Your task to perform on an android device: open app "Facebook" (install if not already installed) and enter user name: "resultants@gmail.com" and password: "earned" Image 0: 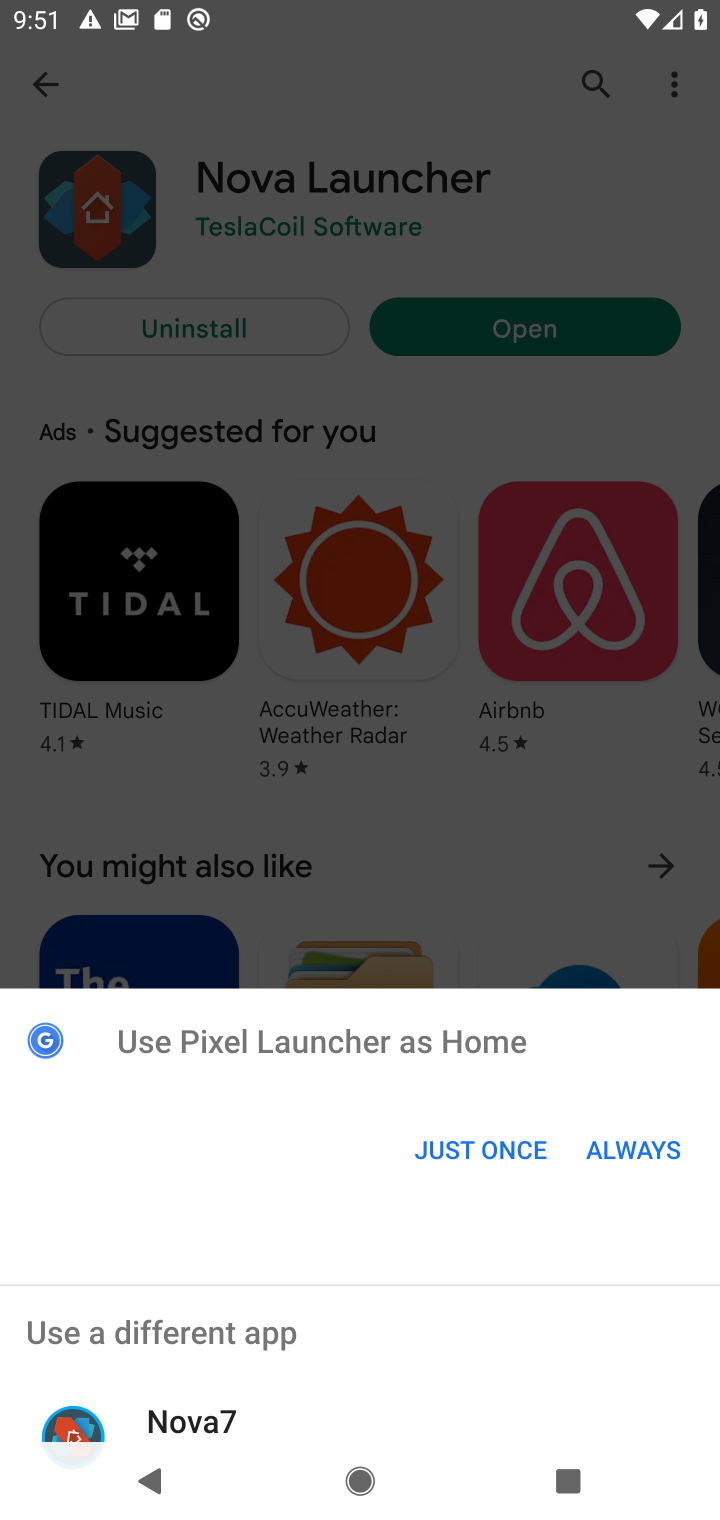
Step 0: press home button
Your task to perform on an android device: open app "Facebook" (install if not already installed) and enter user name: "resultants@gmail.com" and password: "earned" Image 1: 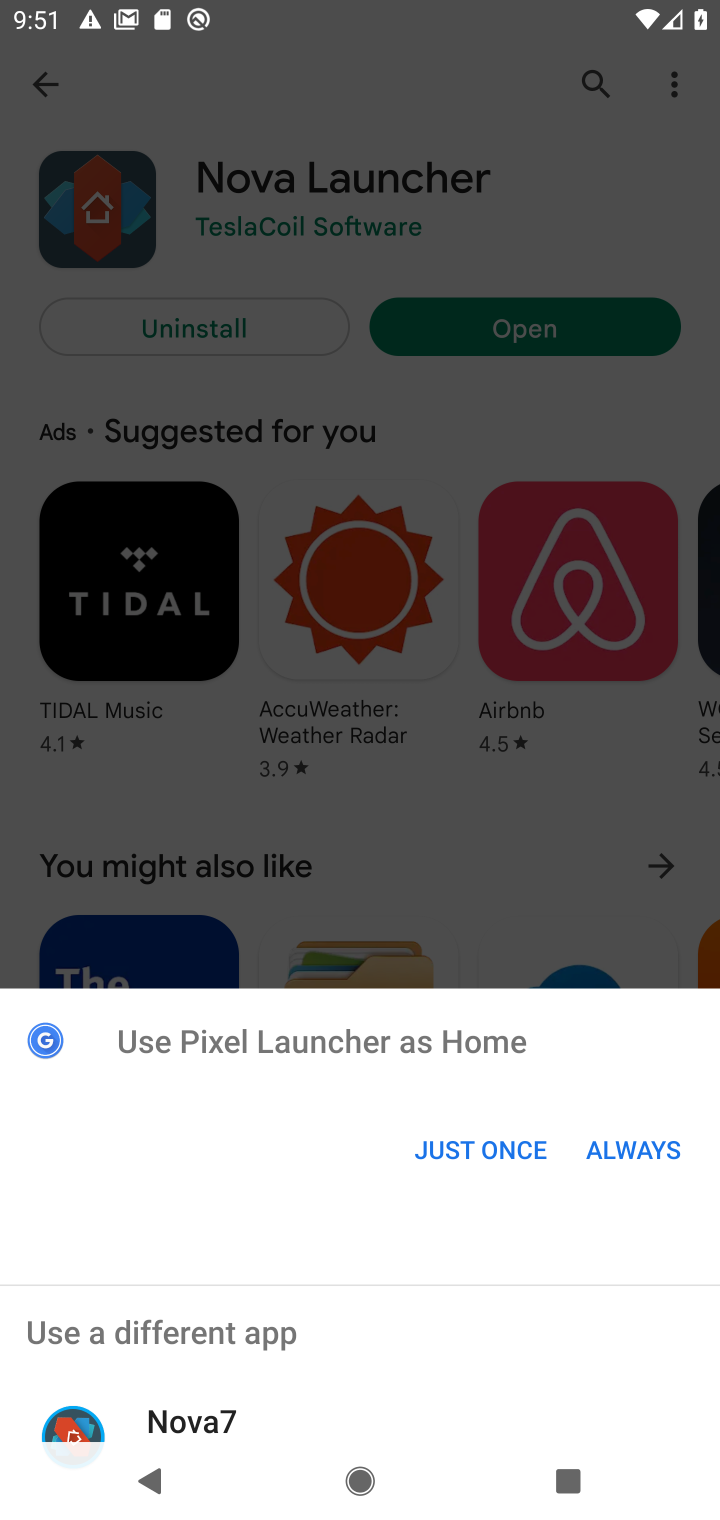
Step 1: click (606, 1140)
Your task to perform on an android device: open app "Facebook" (install if not already installed) and enter user name: "resultants@gmail.com" and password: "earned" Image 2: 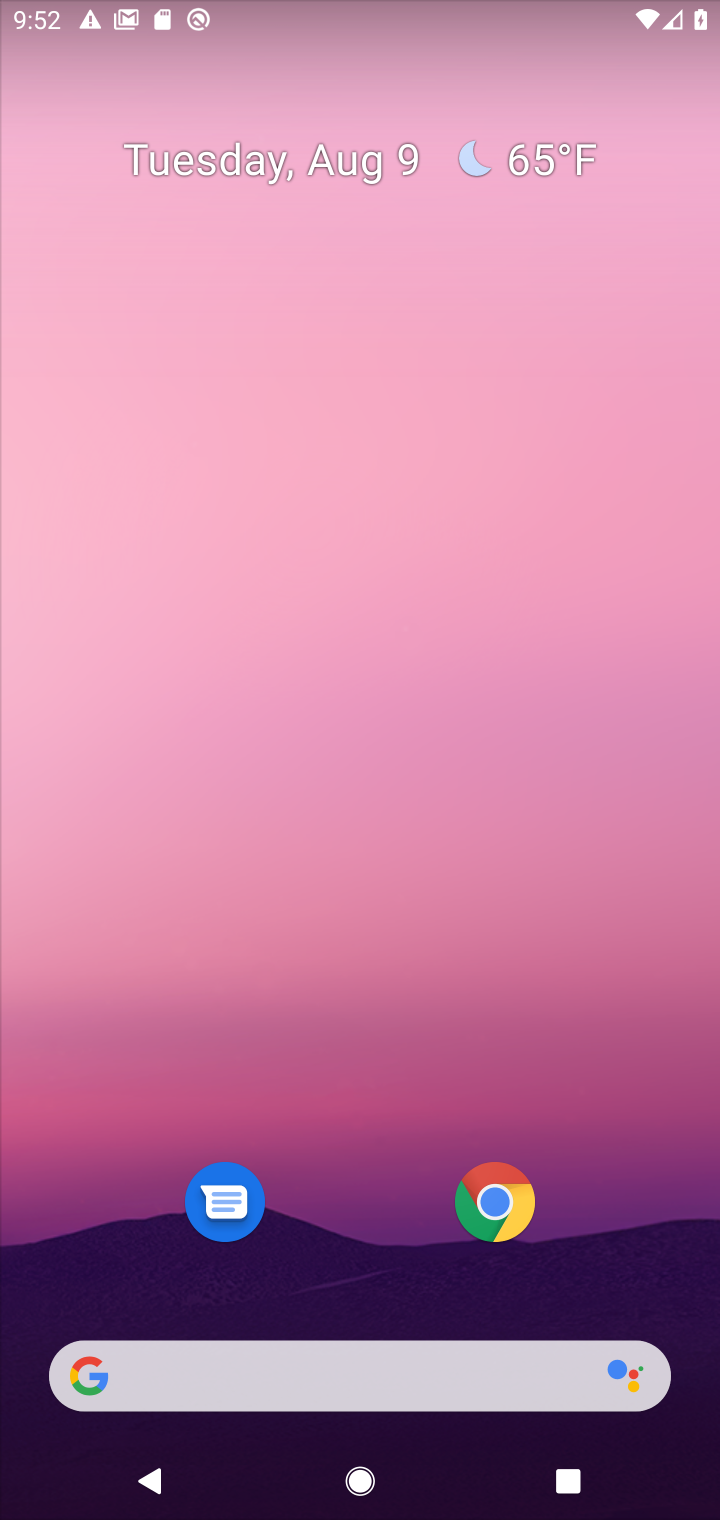
Step 2: drag from (378, 1089) to (379, 217)
Your task to perform on an android device: open app "Facebook" (install if not already installed) and enter user name: "resultants@gmail.com" and password: "earned" Image 3: 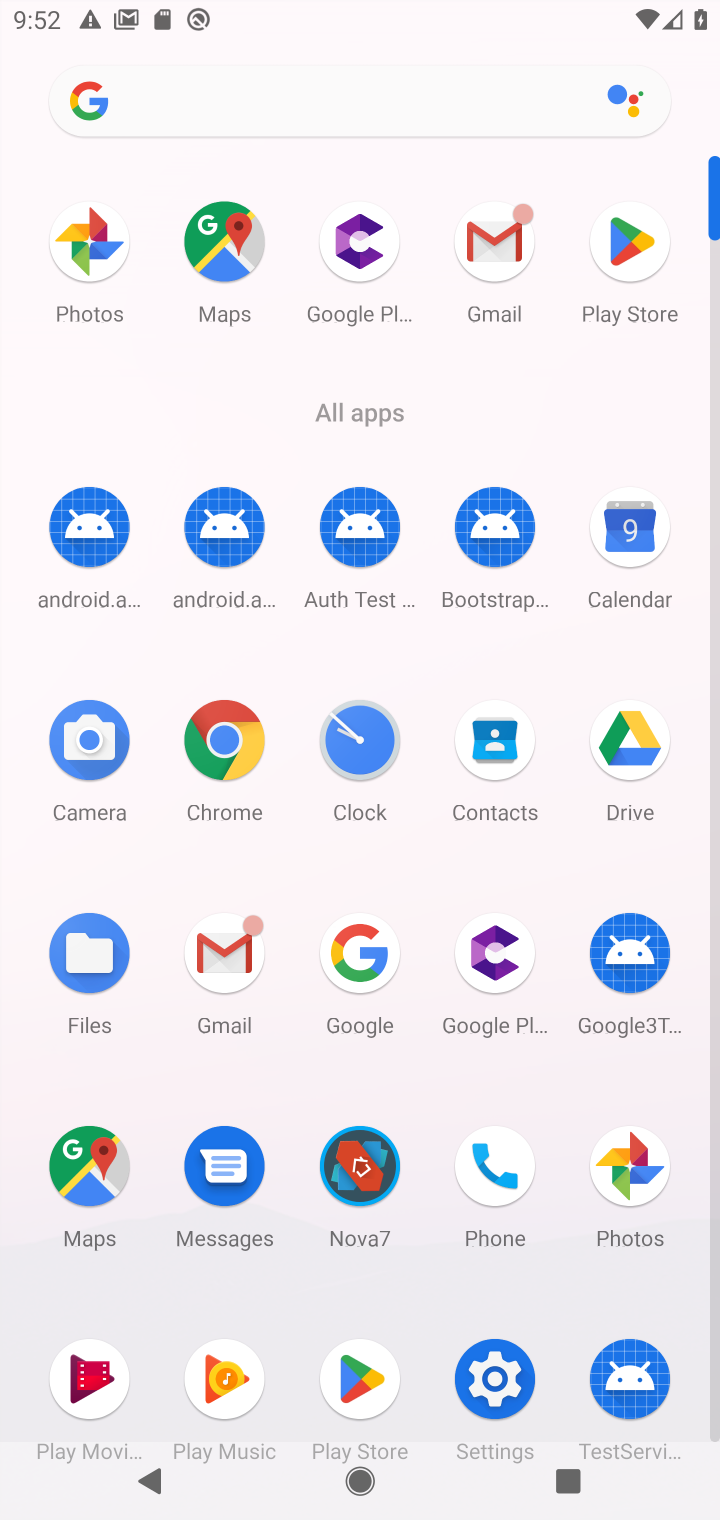
Step 3: click (357, 1344)
Your task to perform on an android device: open app "Facebook" (install if not already installed) and enter user name: "resultants@gmail.com" and password: "earned" Image 4: 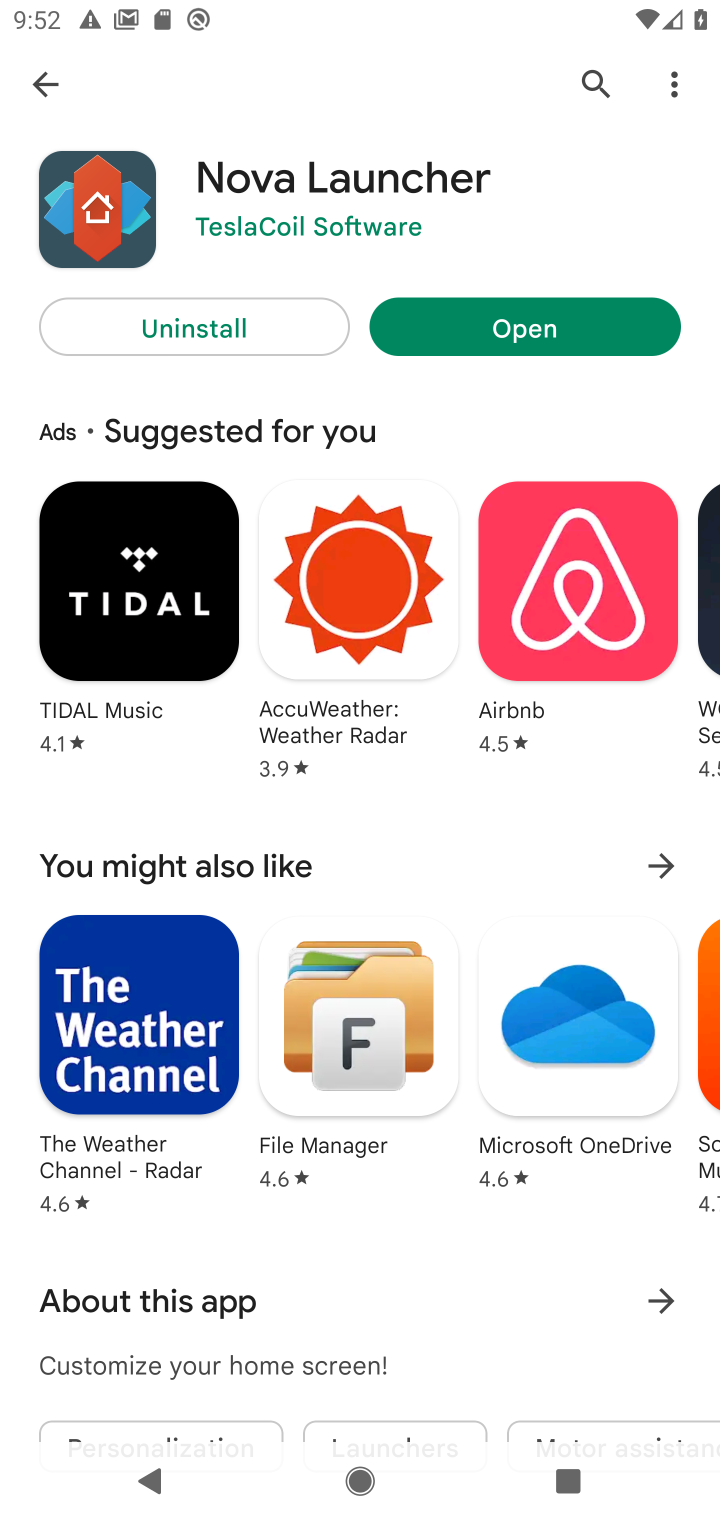
Step 4: click (583, 72)
Your task to perform on an android device: open app "Facebook" (install if not already installed) and enter user name: "resultants@gmail.com" and password: "earned" Image 5: 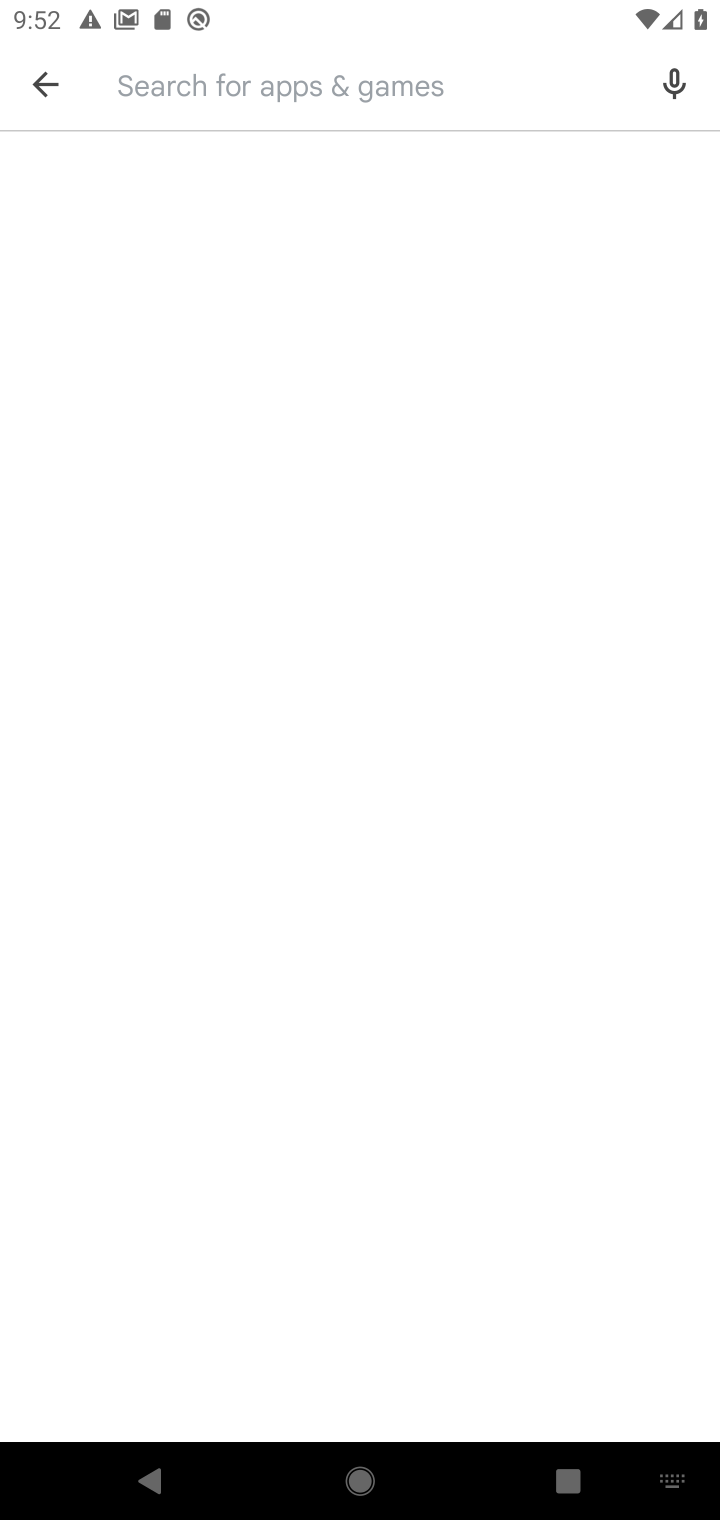
Step 5: type "facebook"
Your task to perform on an android device: open app "Facebook" (install if not already installed) and enter user name: "resultants@gmail.com" and password: "earned" Image 6: 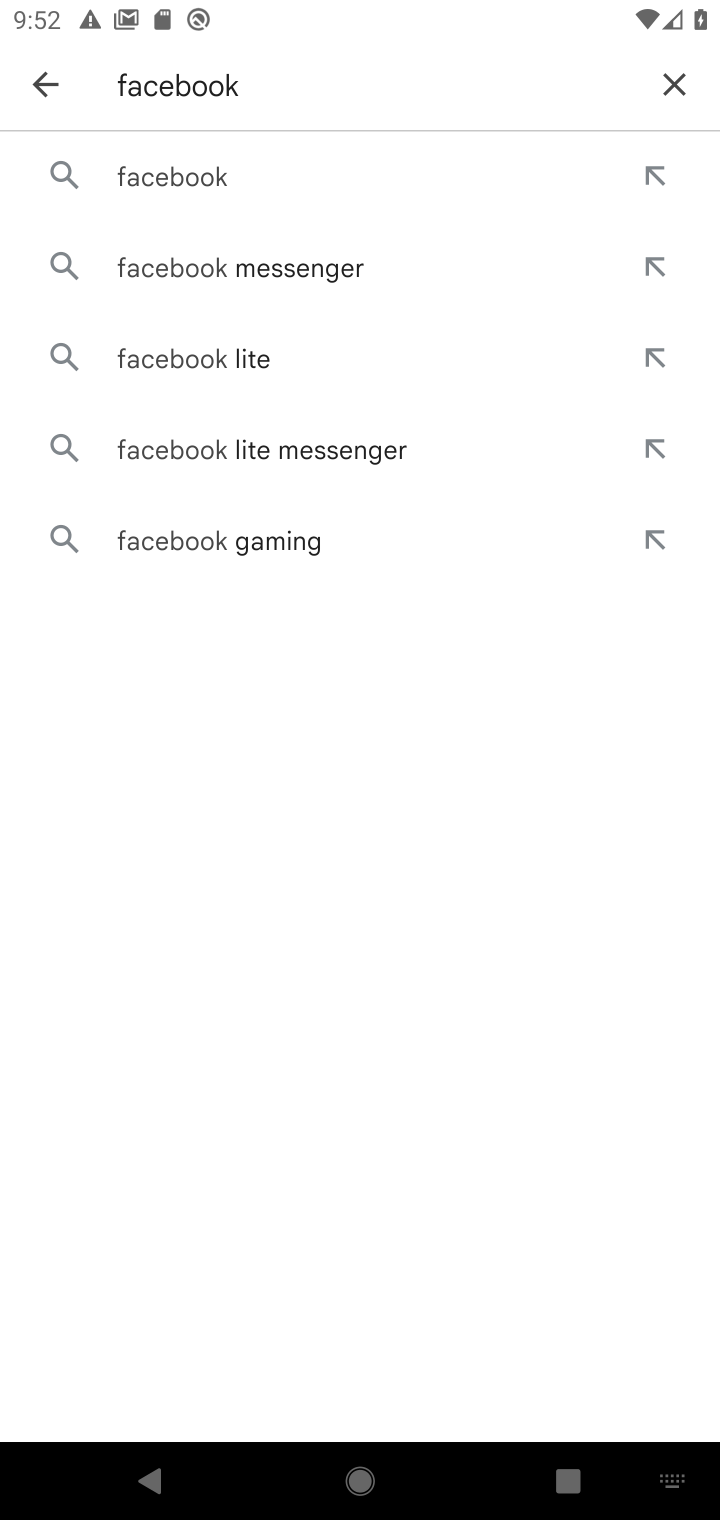
Step 6: click (255, 176)
Your task to perform on an android device: open app "Facebook" (install if not already installed) and enter user name: "resultants@gmail.com" and password: "earned" Image 7: 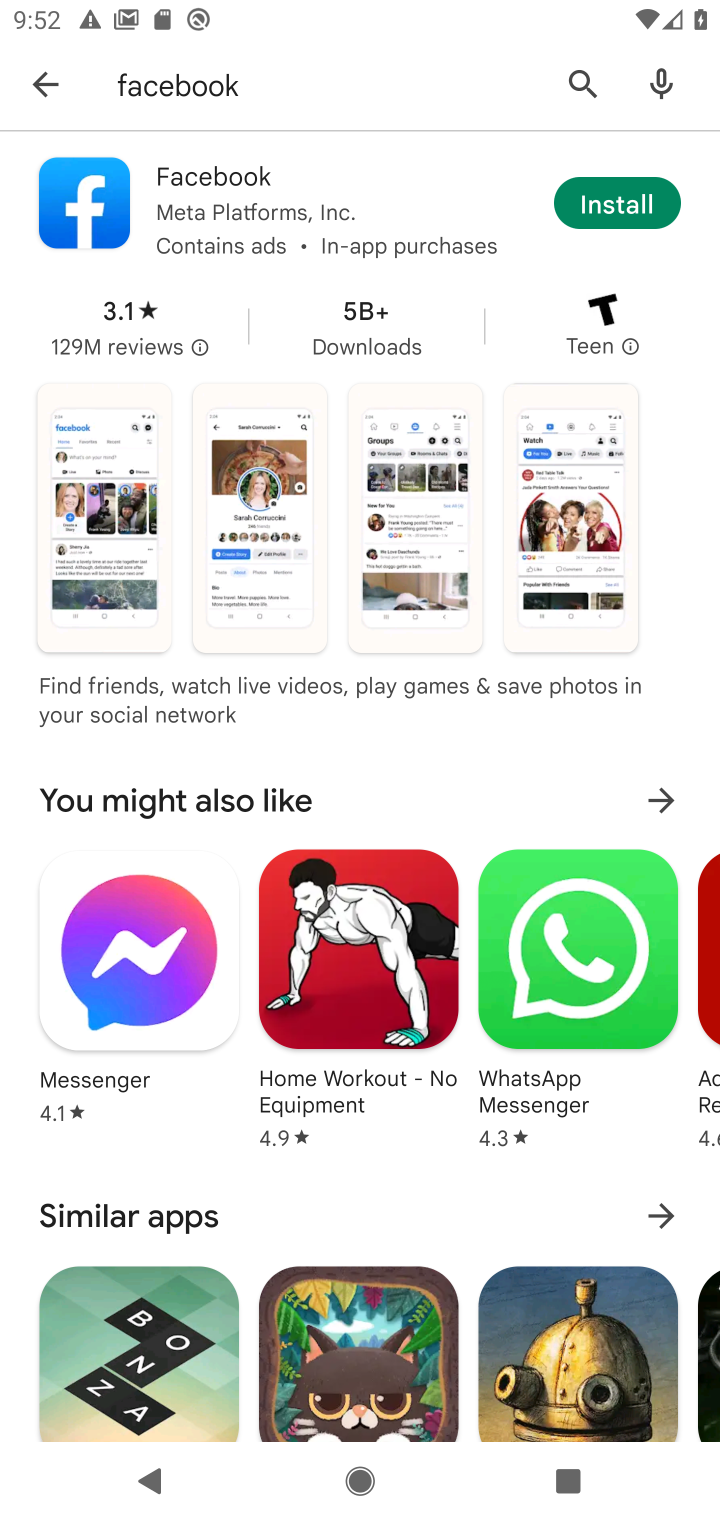
Step 7: click (626, 209)
Your task to perform on an android device: open app "Facebook" (install if not already installed) and enter user name: "resultants@gmail.com" and password: "earned" Image 8: 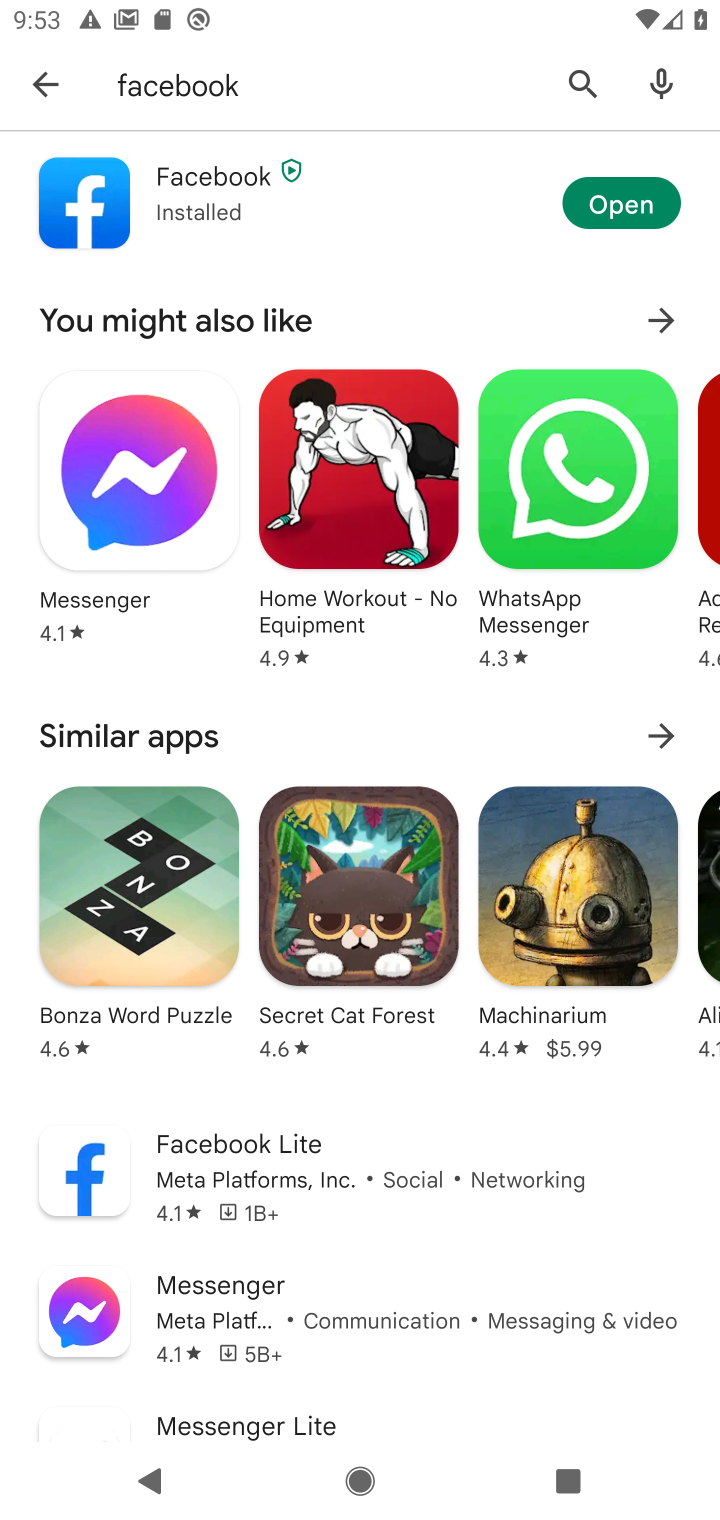
Step 8: click (616, 206)
Your task to perform on an android device: open app "Facebook" (install if not already installed) and enter user name: "resultants@gmail.com" and password: "earned" Image 9: 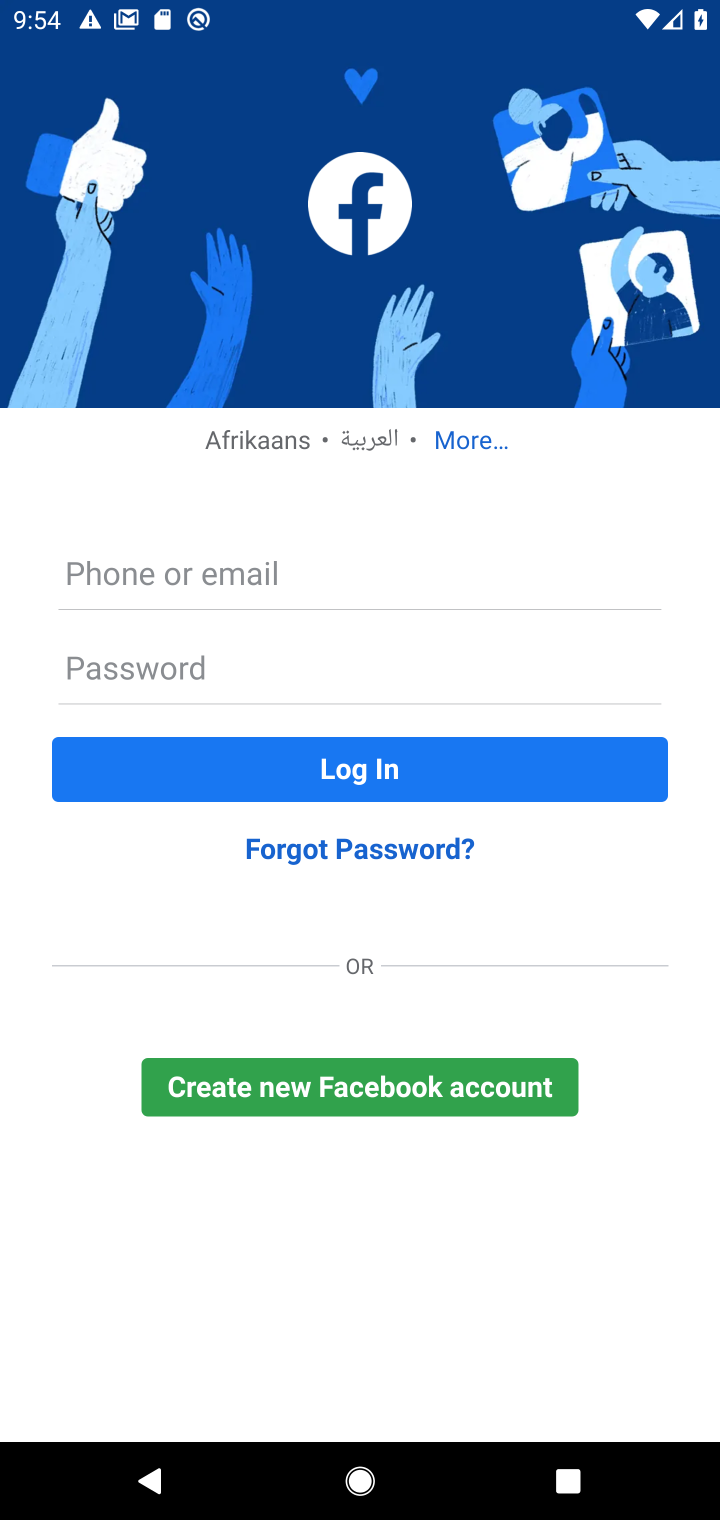
Step 9: click (122, 542)
Your task to perform on an android device: open app "Facebook" (install if not already installed) and enter user name: "resultants@gmail.com" and password: "earned" Image 10: 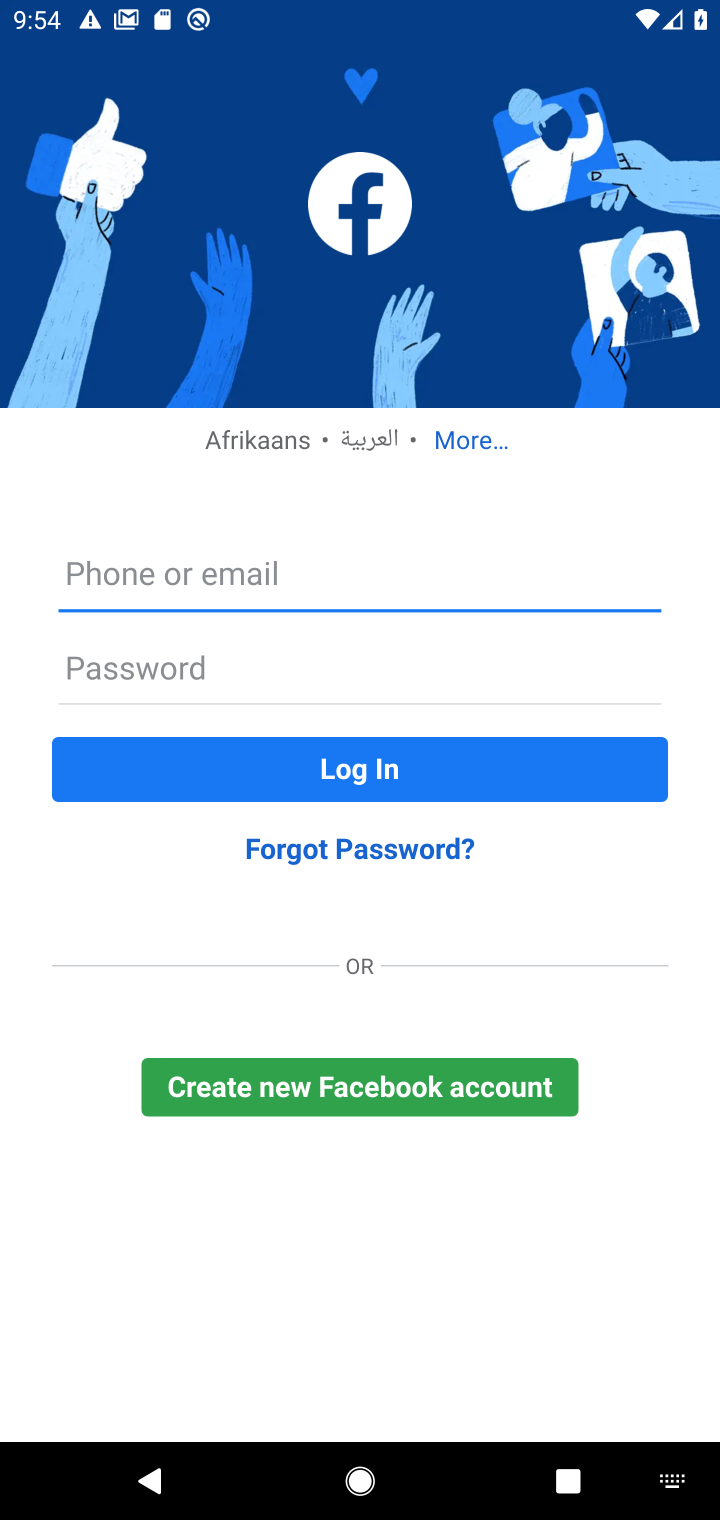
Step 10: type "resultants@gmail.com"
Your task to perform on an android device: open app "Facebook" (install if not already installed) and enter user name: "resultants@gmail.com" and password: "earned" Image 11: 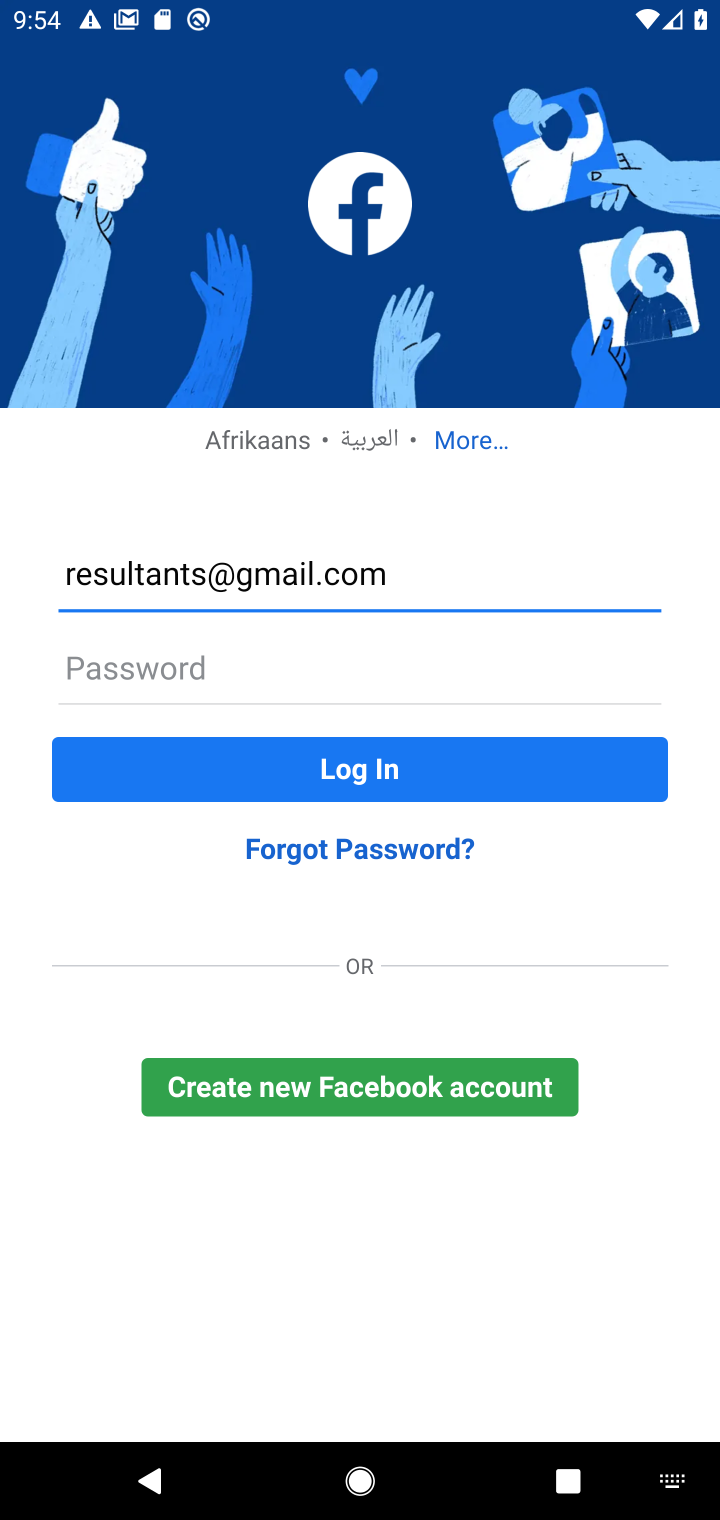
Step 11: click (479, 687)
Your task to perform on an android device: open app "Facebook" (install if not already installed) and enter user name: "resultants@gmail.com" and password: "earned" Image 12: 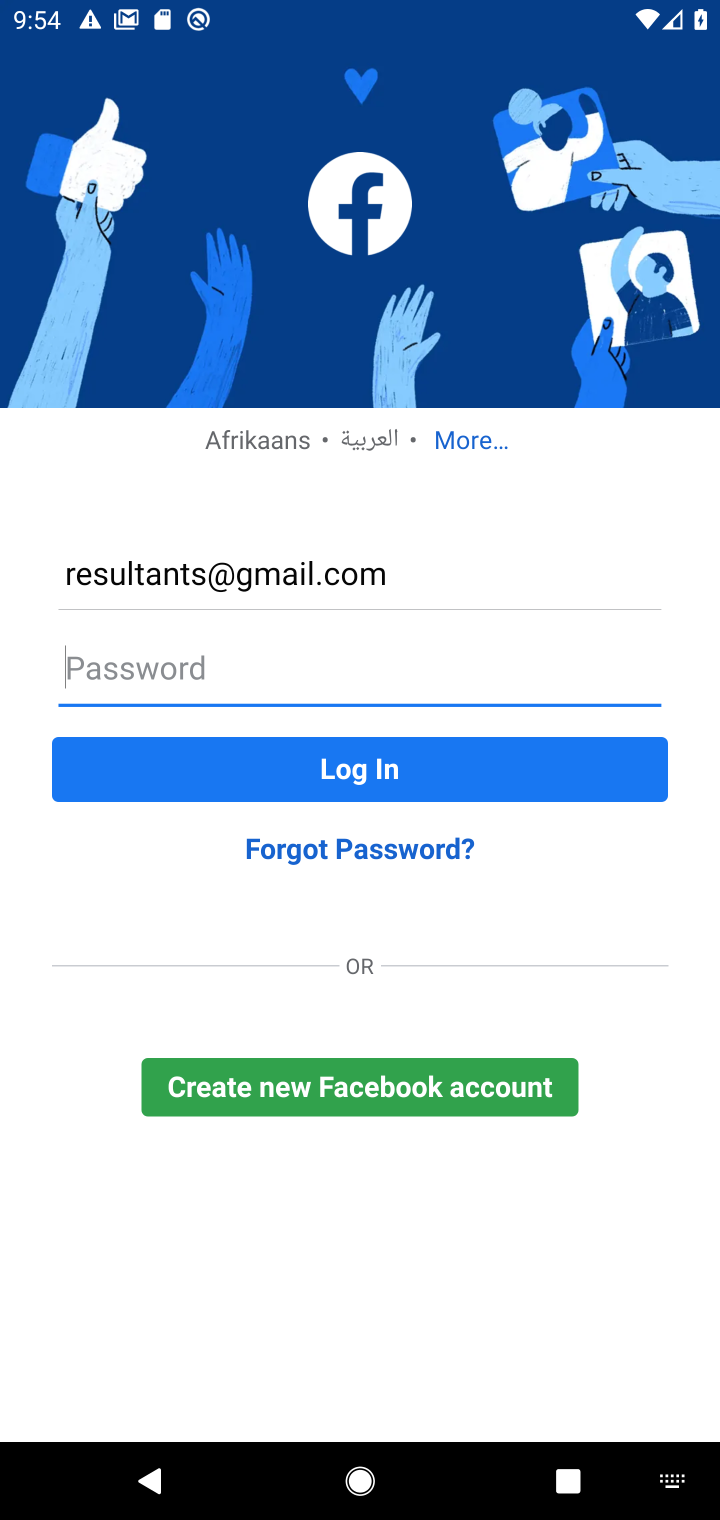
Step 12: type "earned"
Your task to perform on an android device: open app "Facebook" (install if not already installed) and enter user name: "resultants@gmail.com" and password: "earned" Image 13: 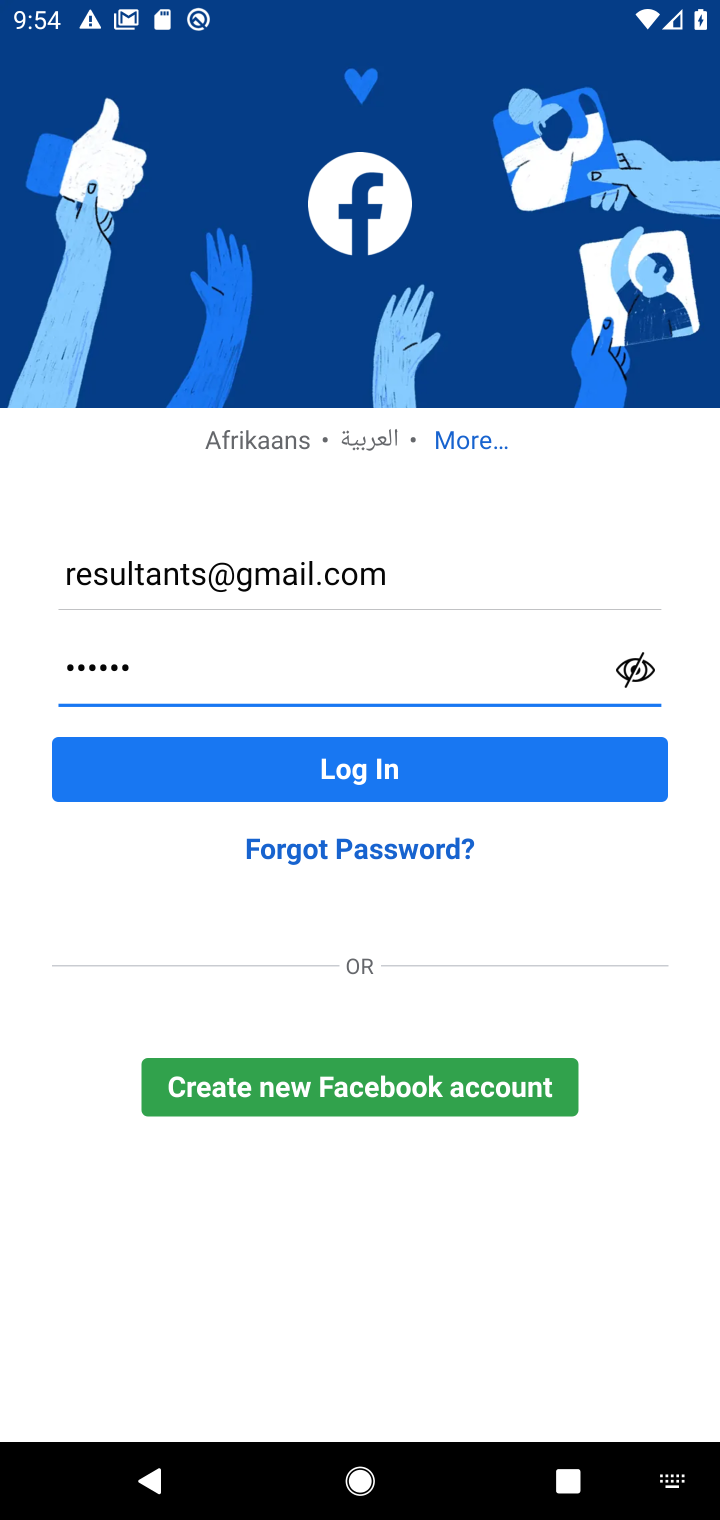
Step 13: task complete